Your task to perform on an android device: turn off javascript in the chrome app Image 0: 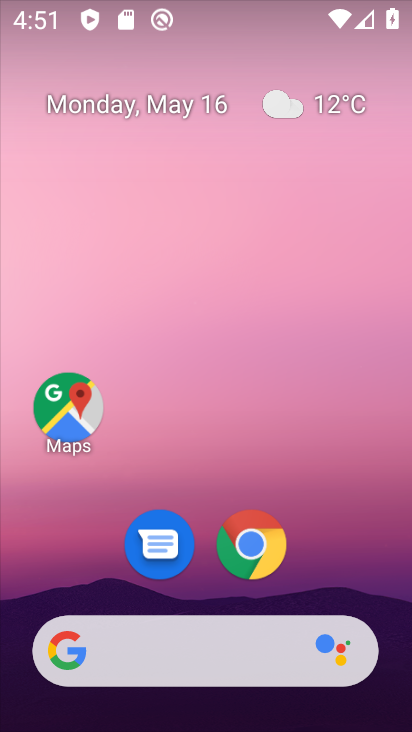
Step 0: click (251, 543)
Your task to perform on an android device: turn off javascript in the chrome app Image 1: 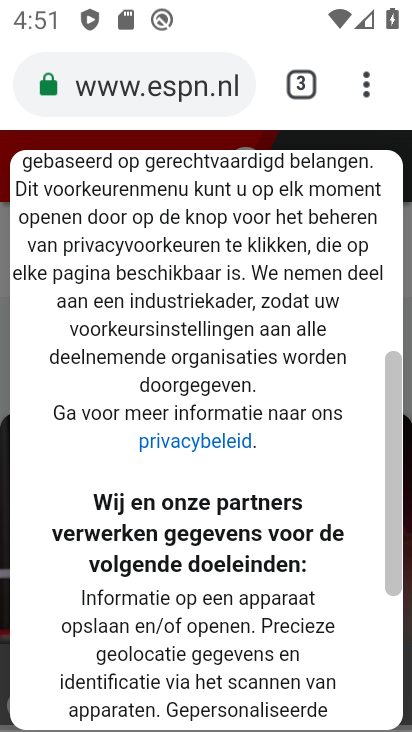
Step 1: click (367, 79)
Your task to perform on an android device: turn off javascript in the chrome app Image 2: 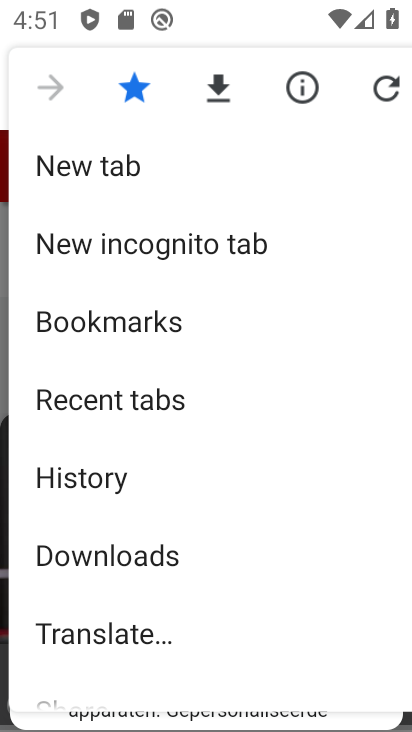
Step 2: drag from (164, 447) to (234, 346)
Your task to perform on an android device: turn off javascript in the chrome app Image 3: 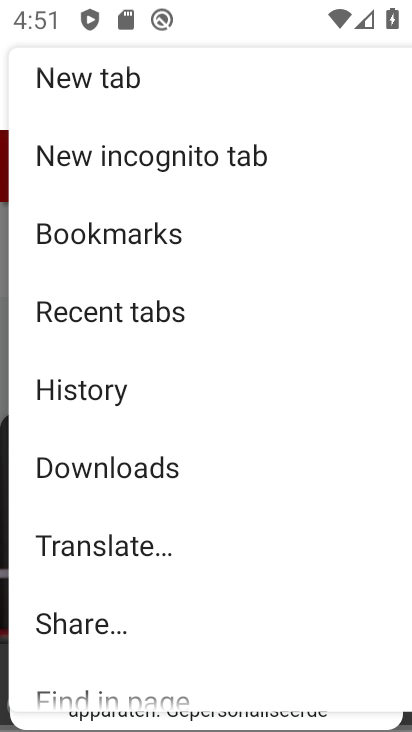
Step 3: drag from (161, 499) to (222, 417)
Your task to perform on an android device: turn off javascript in the chrome app Image 4: 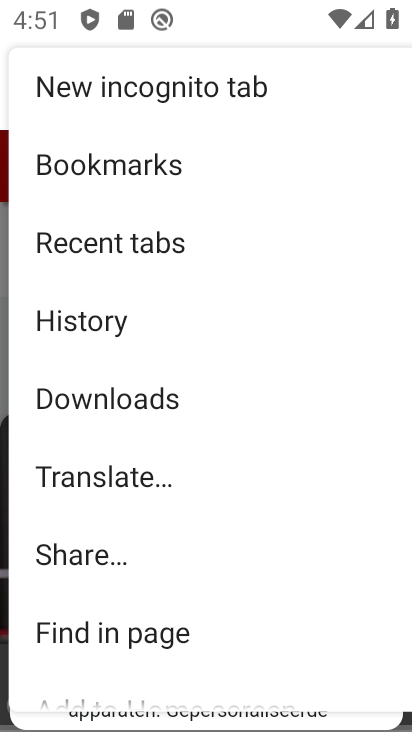
Step 4: drag from (141, 512) to (190, 441)
Your task to perform on an android device: turn off javascript in the chrome app Image 5: 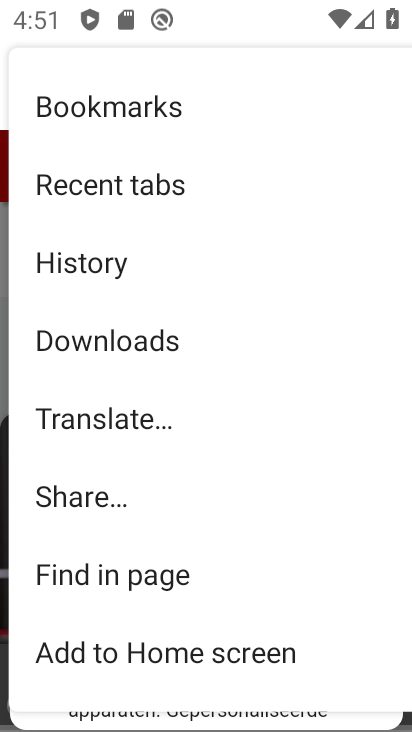
Step 5: drag from (124, 536) to (219, 433)
Your task to perform on an android device: turn off javascript in the chrome app Image 6: 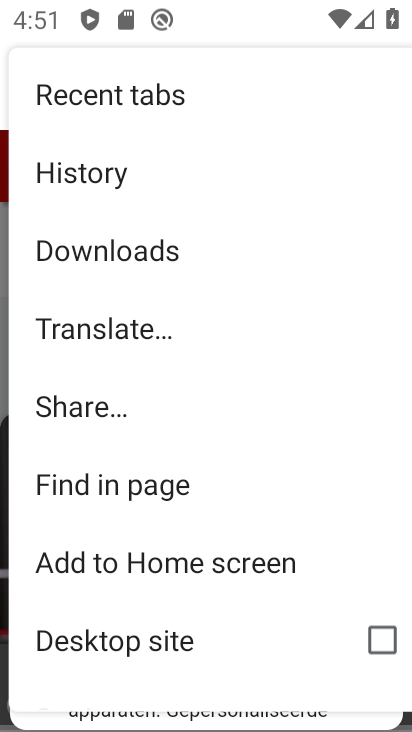
Step 6: drag from (127, 523) to (243, 396)
Your task to perform on an android device: turn off javascript in the chrome app Image 7: 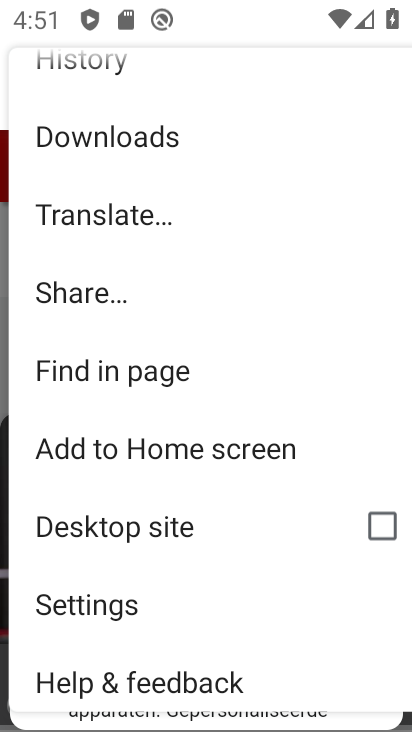
Step 7: drag from (144, 563) to (259, 426)
Your task to perform on an android device: turn off javascript in the chrome app Image 8: 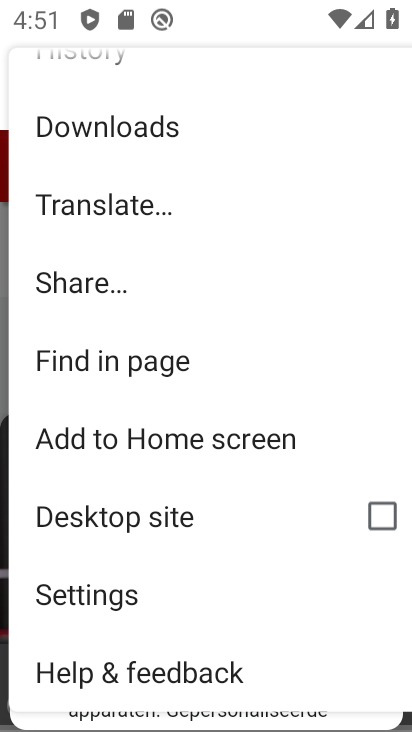
Step 8: click (100, 590)
Your task to perform on an android device: turn off javascript in the chrome app Image 9: 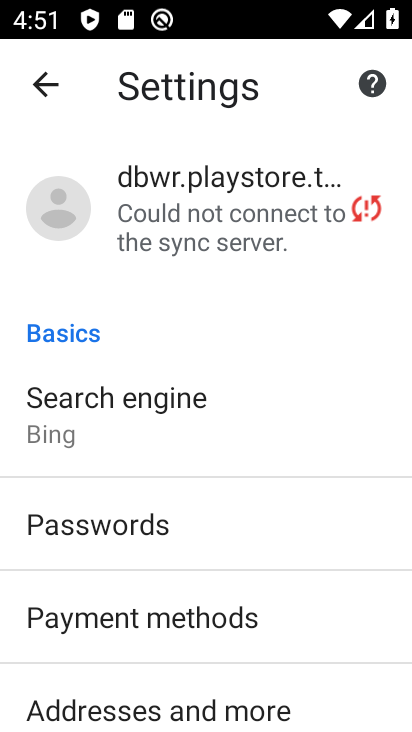
Step 9: drag from (188, 545) to (279, 440)
Your task to perform on an android device: turn off javascript in the chrome app Image 10: 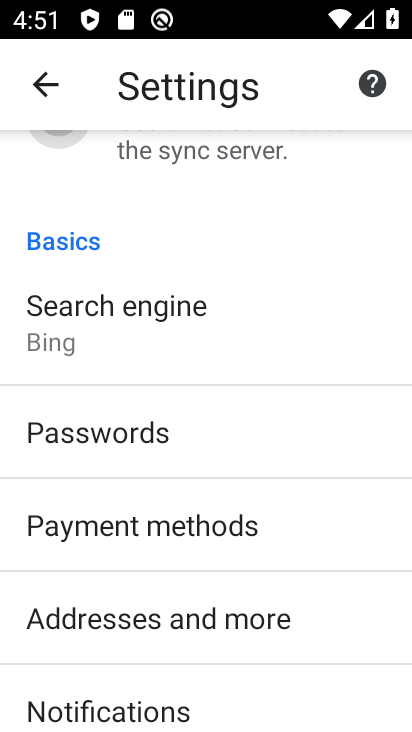
Step 10: drag from (153, 583) to (240, 476)
Your task to perform on an android device: turn off javascript in the chrome app Image 11: 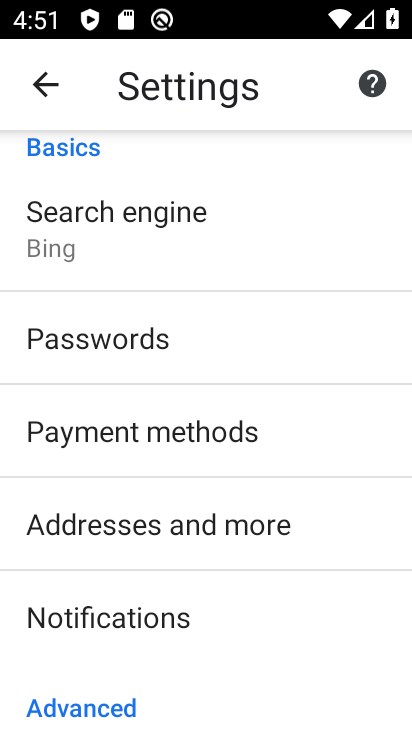
Step 11: drag from (128, 586) to (217, 463)
Your task to perform on an android device: turn off javascript in the chrome app Image 12: 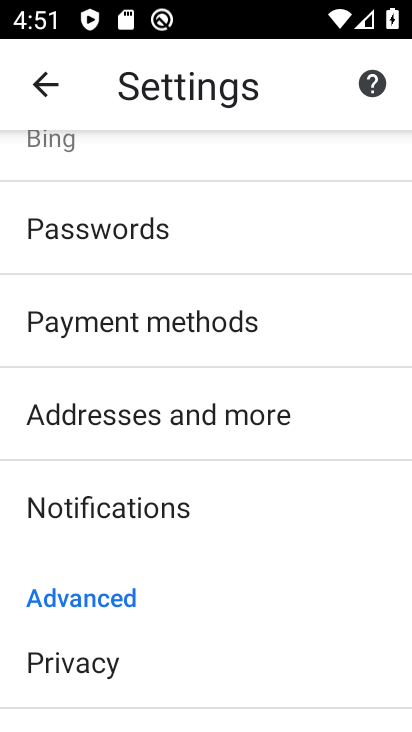
Step 12: drag from (97, 553) to (201, 431)
Your task to perform on an android device: turn off javascript in the chrome app Image 13: 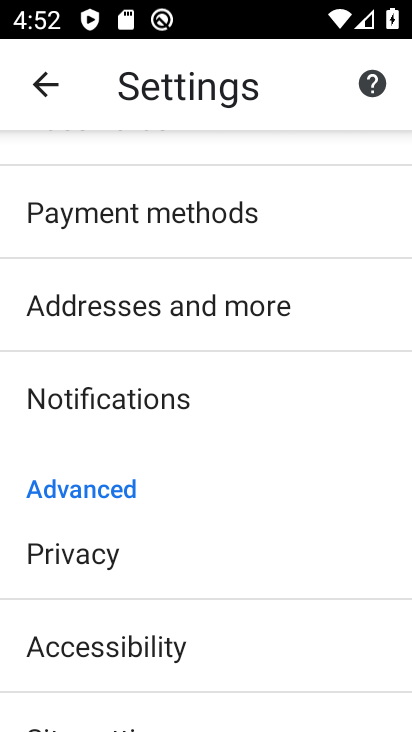
Step 13: drag from (116, 559) to (207, 452)
Your task to perform on an android device: turn off javascript in the chrome app Image 14: 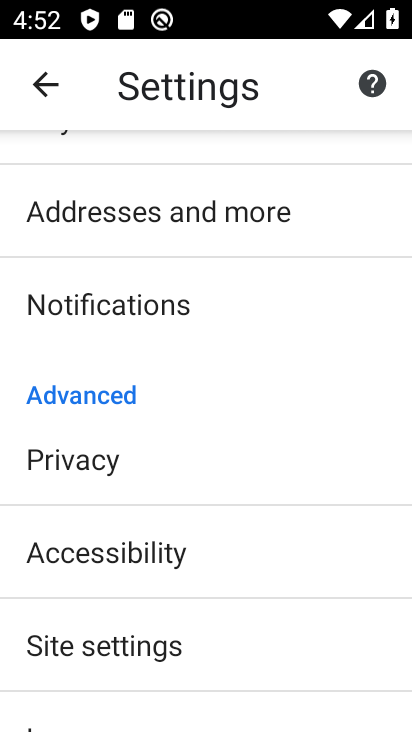
Step 14: drag from (95, 609) to (194, 494)
Your task to perform on an android device: turn off javascript in the chrome app Image 15: 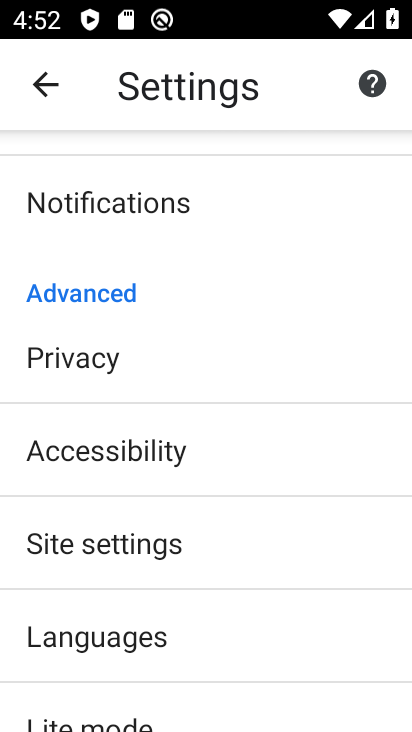
Step 15: click (139, 546)
Your task to perform on an android device: turn off javascript in the chrome app Image 16: 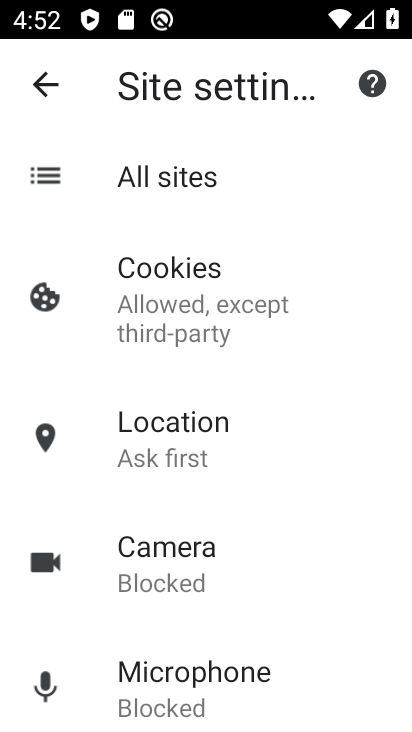
Step 16: drag from (180, 514) to (238, 423)
Your task to perform on an android device: turn off javascript in the chrome app Image 17: 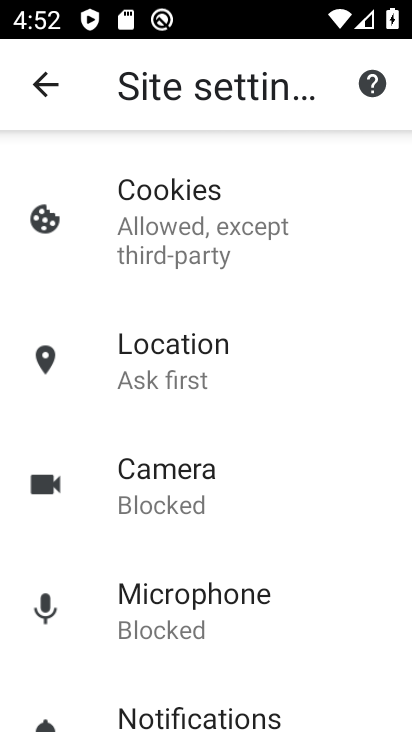
Step 17: drag from (165, 532) to (233, 452)
Your task to perform on an android device: turn off javascript in the chrome app Image 18: 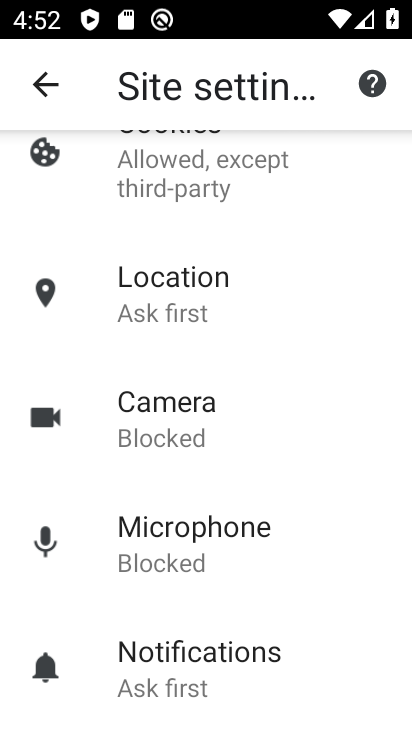
Step 18: drag from (158, 576) to (236, 467)
Your task to perform on an android device: turn off javascript in the chrome app Image 19: 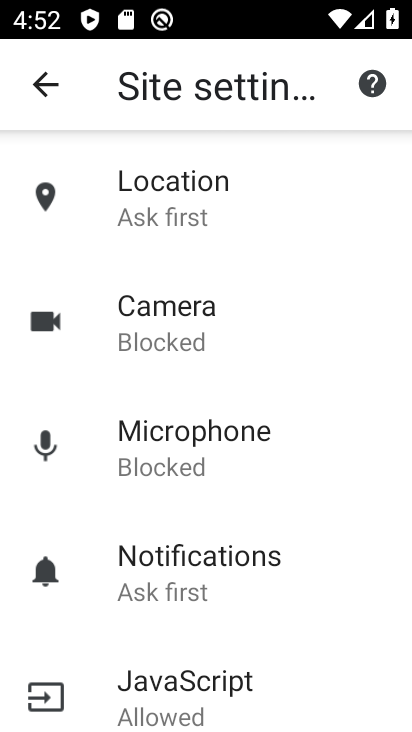
Step 19: drag from (163, 619) to (224, 523)
Your task to perform on an android device: turn off javascript in the chrome app Image 20: 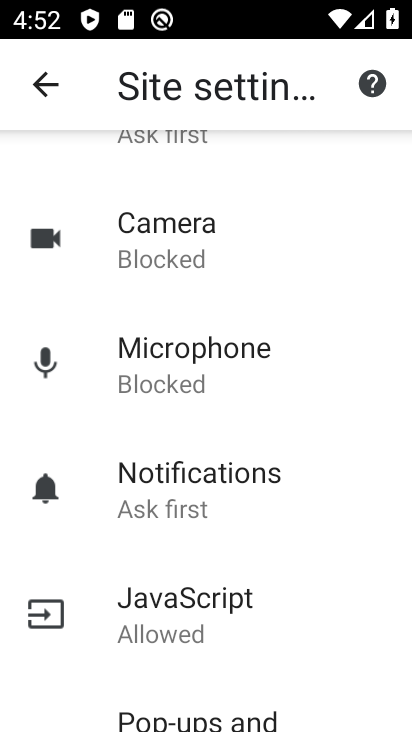
Step 20: drag from (151, 670) to (262, 526)
Your task to perform on an android device: turn off javascript in the chrome app Image 21: 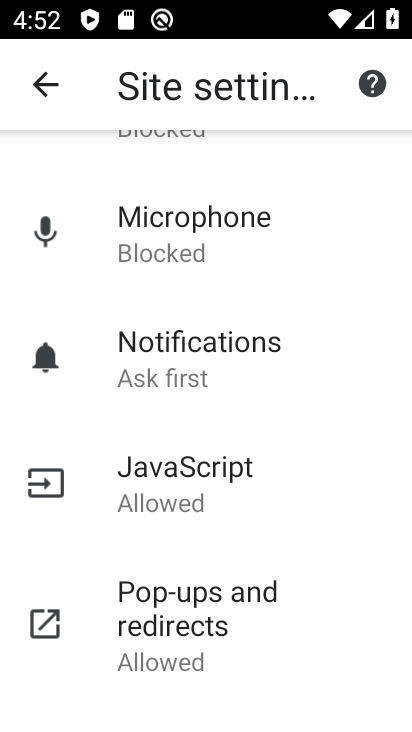
Step 21: click (198, 467)
Your task to perform on an android device: turn off javascript in the chrome app Image 22: 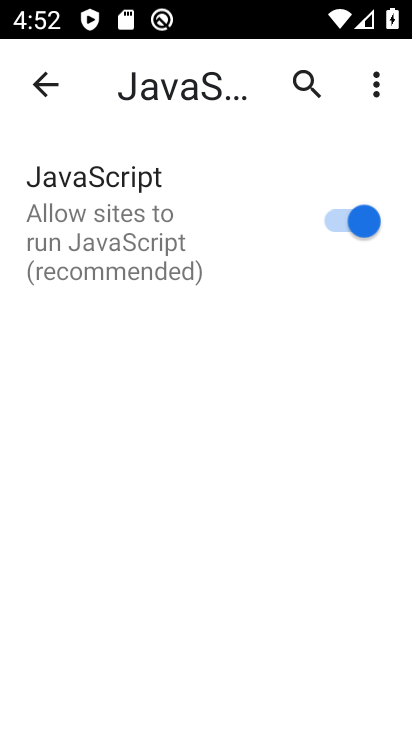
Step 22: click (367, 229)
Your task to perform on an android device: turn off javascript in the chrome app Image 23: 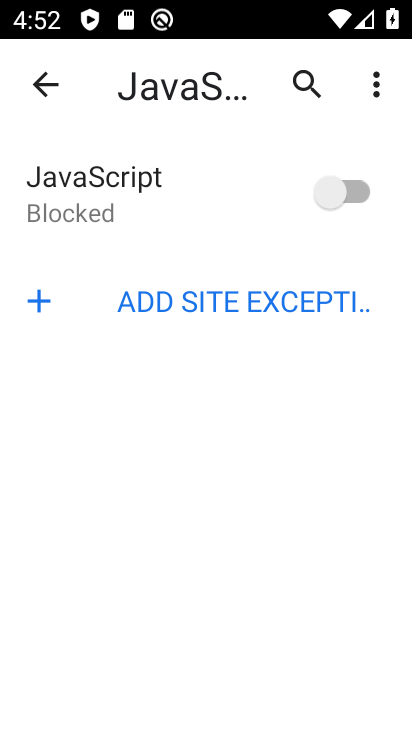
Step 23: task complete